Your task to perform on an android device: Open the Play Movies app and select the watchlist tab. Image 0: 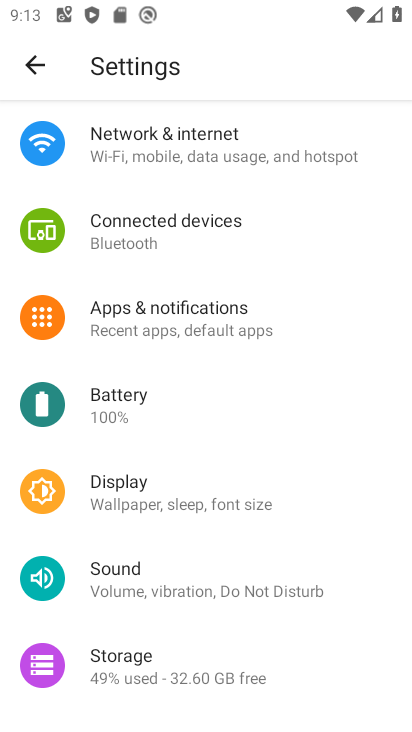
Step 0: press home button
Your task to perform on an android device: Open the Play Movies app and select the watchlist tab. Image 1: 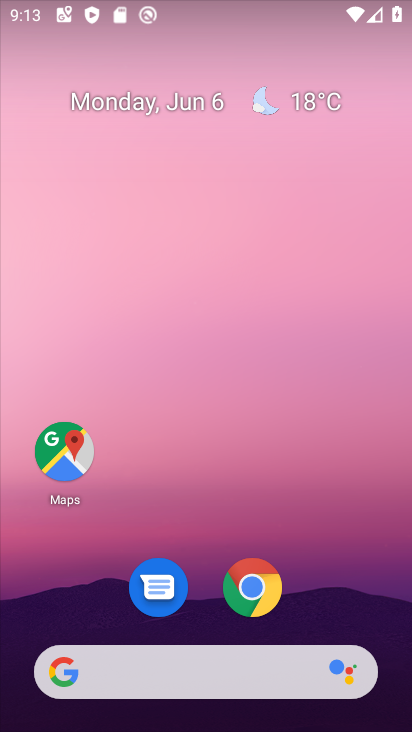
Step 1: drag from (311, 560) to (248, 102)
Your task to perform on an android device: Open the Play Movies app and select the watchlist tab. Image 2: 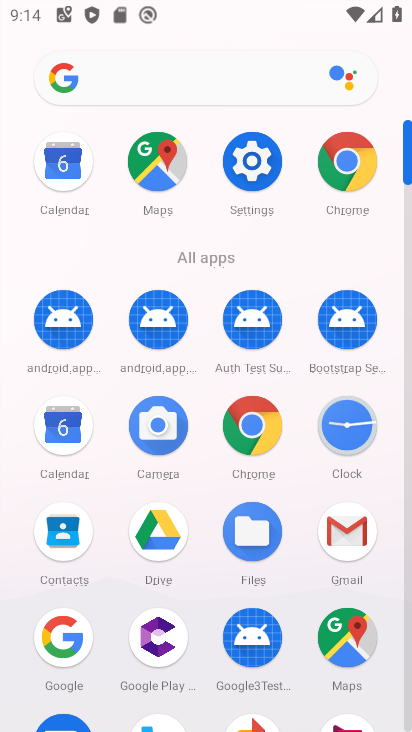
Step 2: drag from (297, 590) to (283, 201)
Your task to perform on an android device: Open the Play Movies app and select the watchlist tab. Image 3: 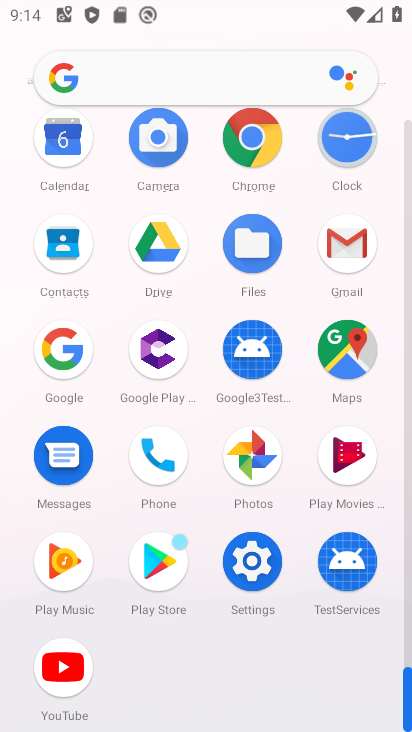
Step 3: click (348, 454)
Your task to perform on an android device: Open the Play Movies app and select the watchlist tab. Image 4: 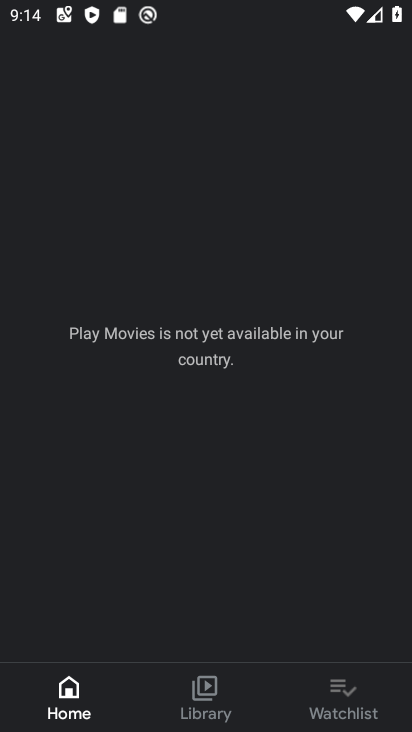
Step 4: click (350, 686)
Your task to perform on an android device: Open the Play Movies app and select the watchlist tab. Image 5: 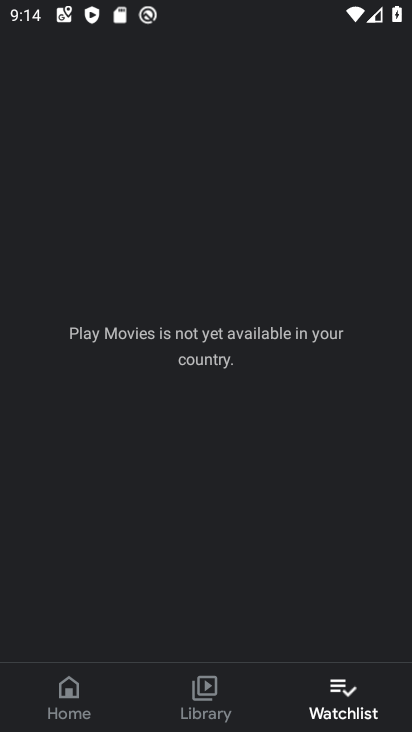
Step 5: task complete